Your task to perform on an android device: see tabs open on other devices in the chrome app Image 0: 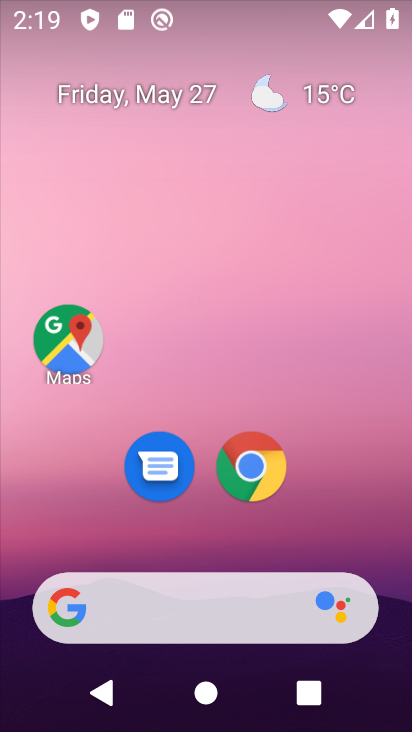
Step 0: drag from (350, 539) to (350, 163)
Your task to perform on an android device: see tabs open on other devices in the chrome app Image 1: 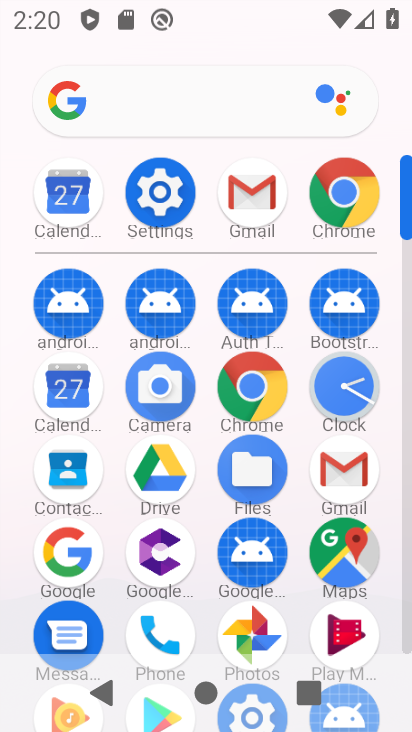
Step 1: click (273, 390)
Your task to perform on an android device: see tabs open on other devices in the chrome app Image 2: 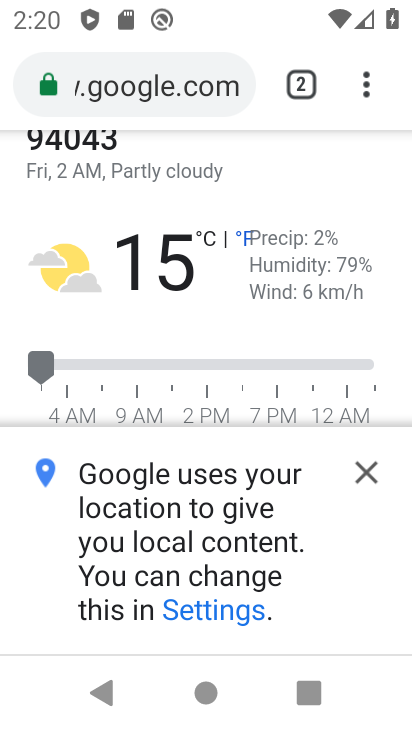
Step 2: click (370, 469)
Your task to perform on an android device: see tabs open on other devices in the chrome app Image 3: 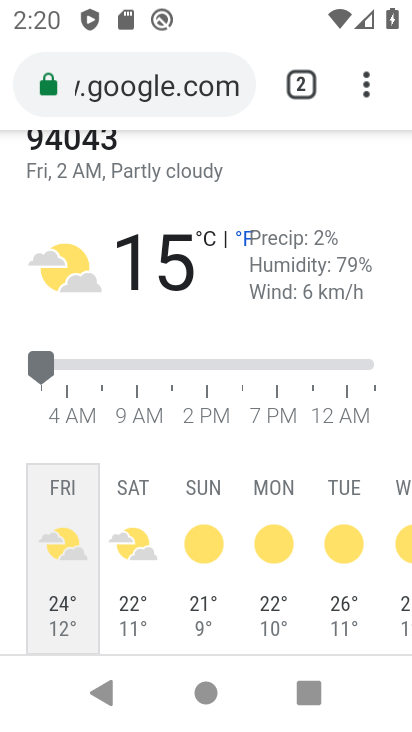
Step 3: click (232, 90)
Your task to perform on an android device: see tabs open on other devices in the chrome app Image 4: 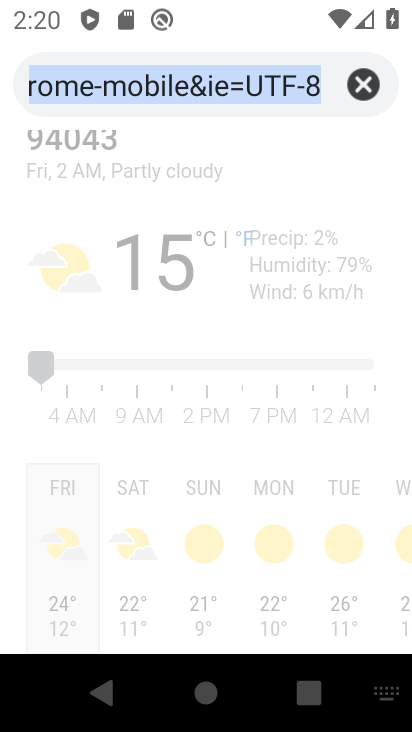
Step 4: click (369, 86)
Your task to perform on an android device: see tabs open on other devices in the chrome app Image 5: 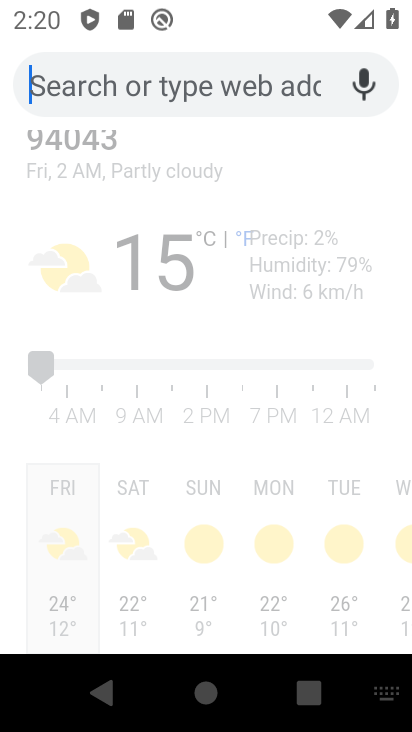
Step 5: press back button
Your task to perform on an android device: see tabs open on other devices in the chrome app Image 6: 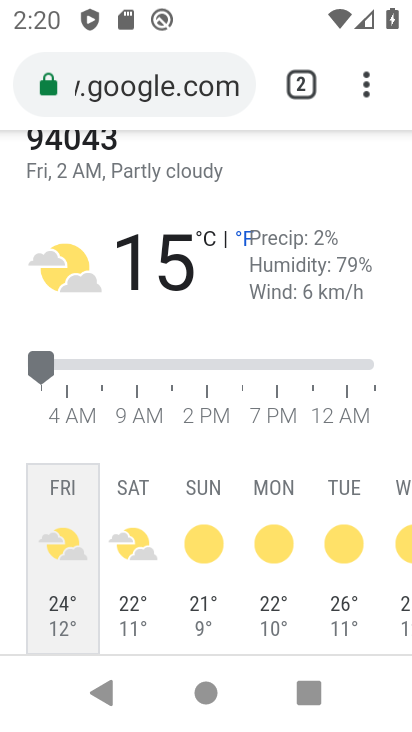
Step 6: click (300, 87)
Your task to perform on an android device: see tabs open on other devices in the chrome app Image 7: 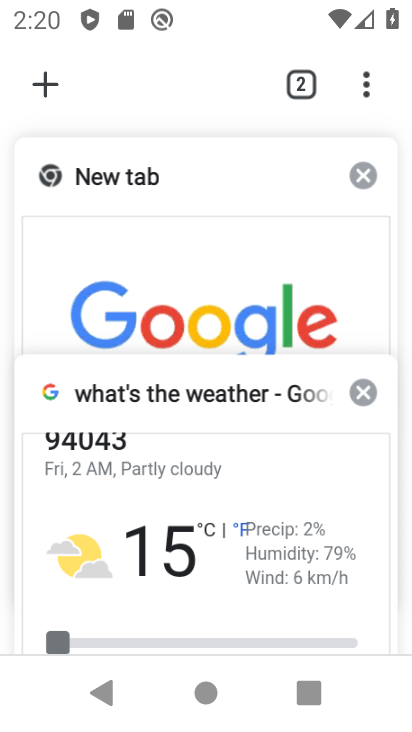
Step 7: task complete